Your task to perform on an android device: What is the capital of Argentina? Image 0: 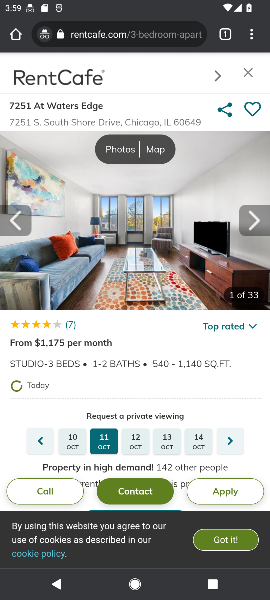
Step 0: click (131, 39)
Your task to perform on an android device: What is the capital of Argentina? Image 1: 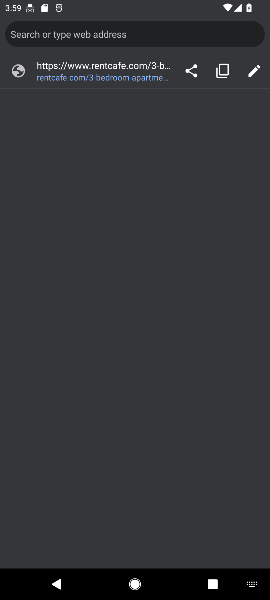
Step 1: type "What is the capital of Argentina?"
Your task to perform on an android device: What is the capital of Argentina? Image 2: 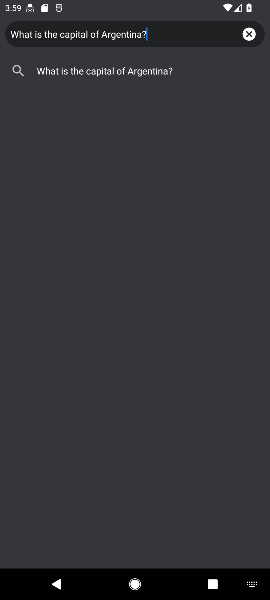
Step 2: click (140, 72)
Your task to perform on an android device: What is the capital of Argentina? Image 3: 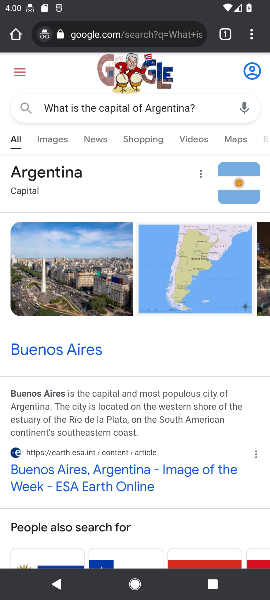
Step 3: click (144, 397)
Your task to perform on an android device: What is the capital of Argentina? Image 4: 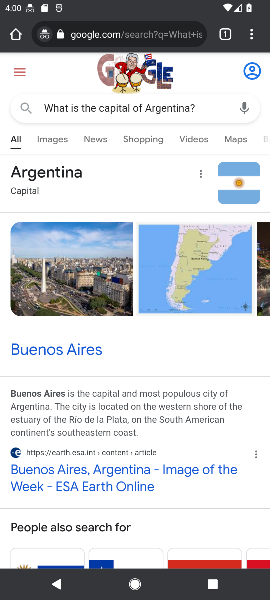
Step 4: task complete